Your task to perform on an android device: allow notifications from all sites in the chrome app Image 0: 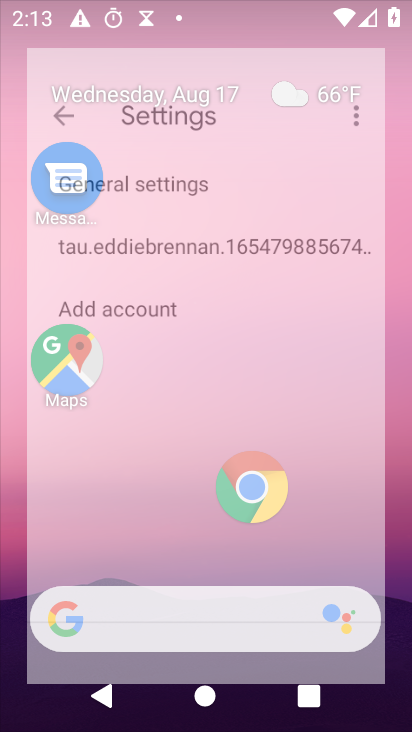
Step 0: press home button
Your task to perform on an android device: allow notifications from all sites in the chrome app Image 1: 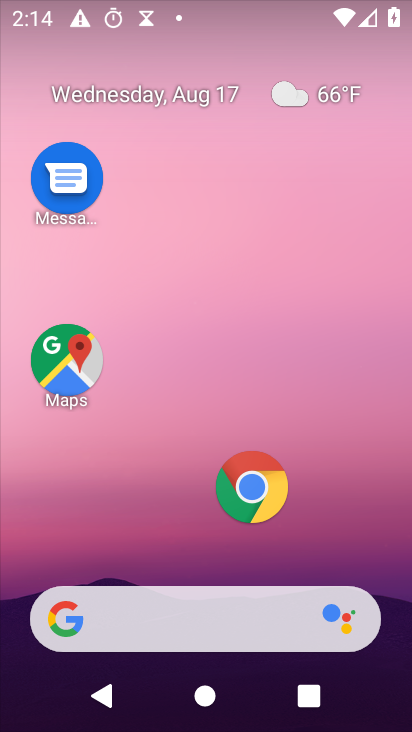
Step 1: click (250, 494)
Your task to perform on an android device: allow notifications from all sites in the chrome app Image 2: 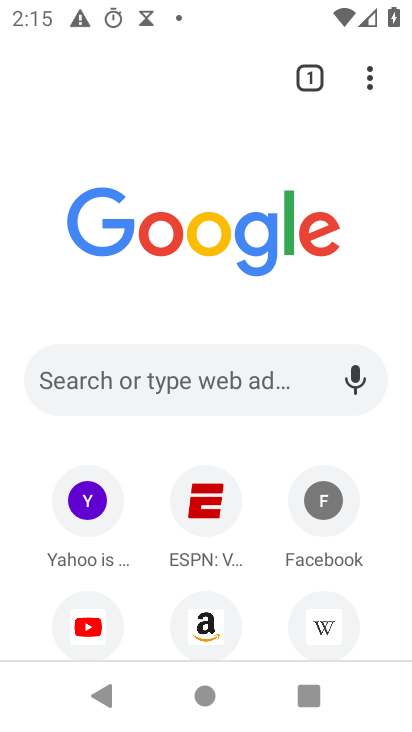
Step 2: drag from (367, 80) to (101, 557)
Your task to perform on an android device: allow notifications from all sites in the chrome app Image 3: 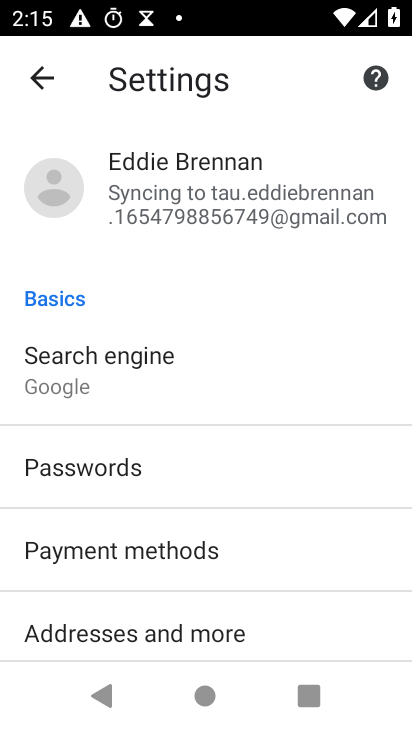
Step 3: drag from (297, 632) to (284, 131)
Your task to perform on an android device: allow notifications from all sites in the chrome app Image 4: 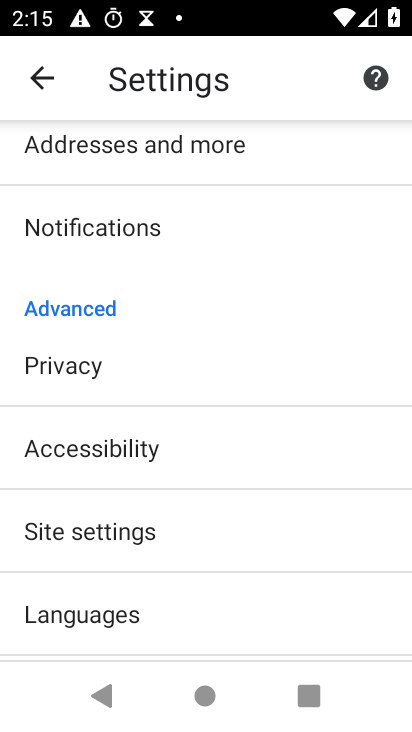
Step 4: click (94, 537)
Your task to perform on an android device: allow notifications from all sites in the chrome app Image 5: 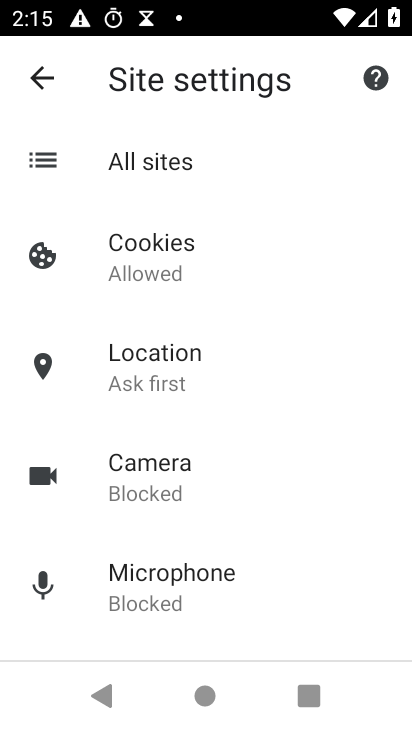
Step 5: drag from (317, 557) to (265, 143)
Your task to perform on an android device: allow notifications from all sites in the chrome app Image 6: 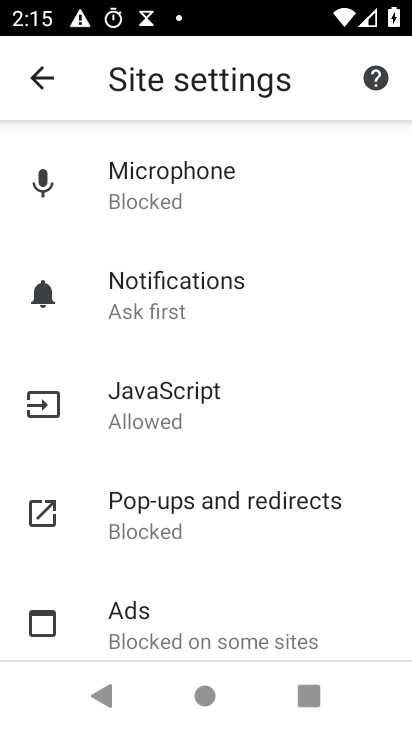
Step 6: click (167, 305)
Your task to perform on an android device: allow notifications from all sites in the chrome app Image 7: 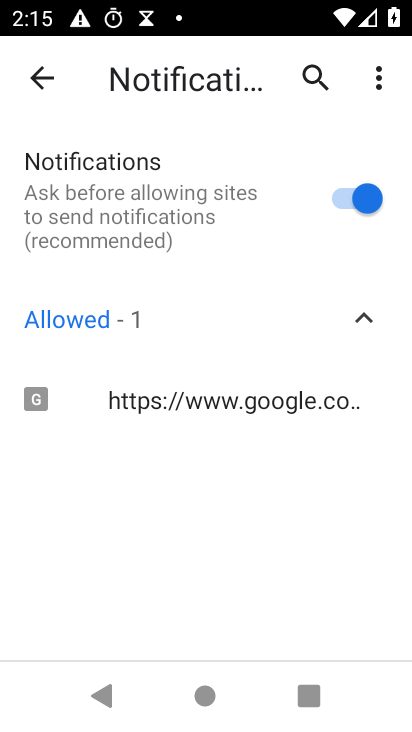
Step 7: task complete